Your task to perform on an android device: turn off picture-in-picture Image 0: 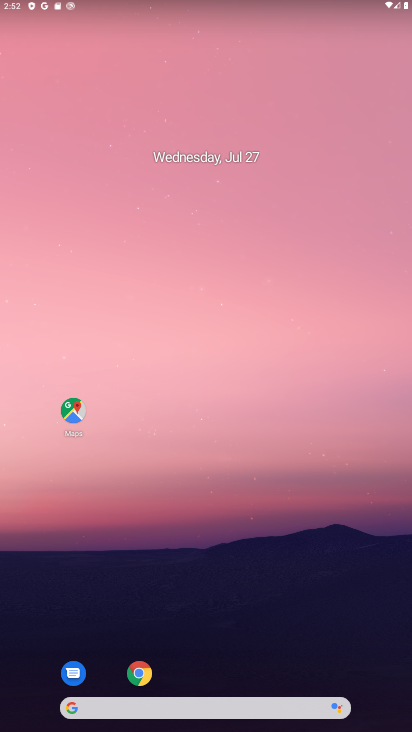
Step 0: click (145, 669)
Your task to perform on an android device: turn off picture-in-picture Image 1: 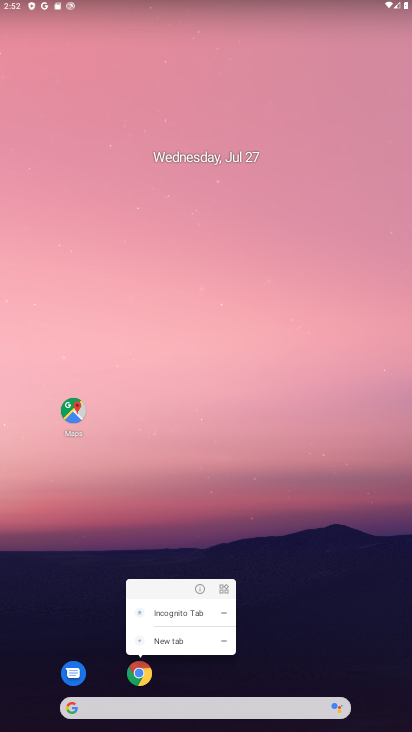
Step 1: click (201, 586)
Your task to perform on an android device: turn off picture-in-picture Image 2: 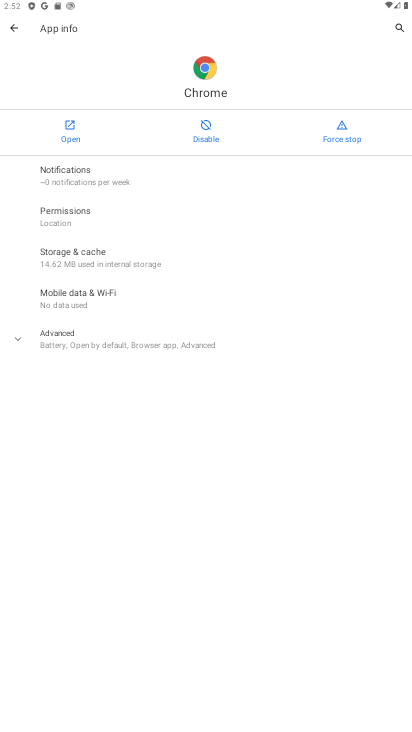
Step 2: click (236, 339)
Your task to perform on an android device: turn off picture-in-picture Image 3: 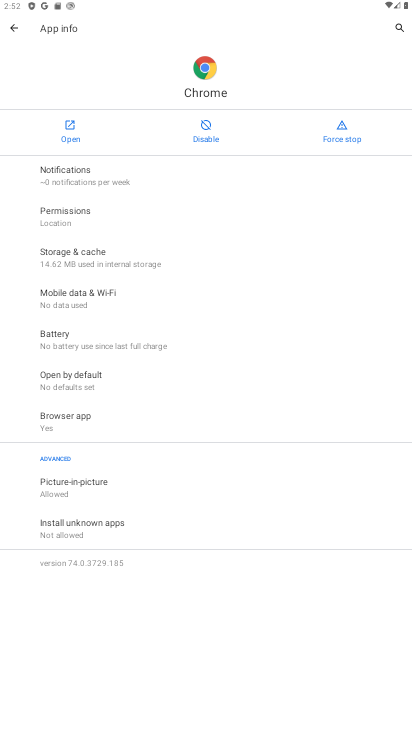
Step 3: click (93, 483)
Your task to perform on an android device: turn off picture-in-picture Image 4: 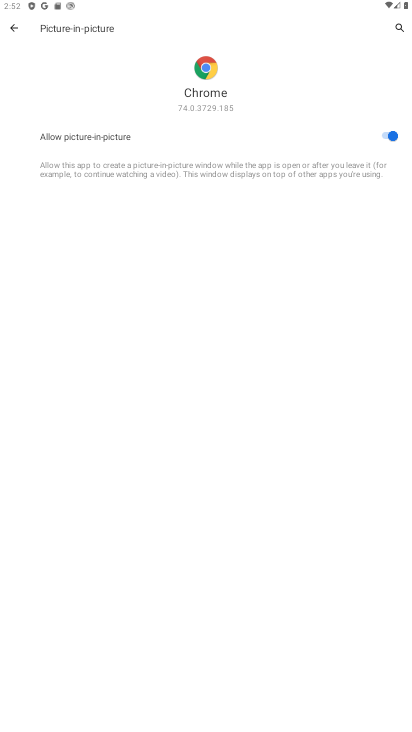
Step 4: click (385, 138)
Your task to perform on an android device: turn off picture-in-picture Image 5: 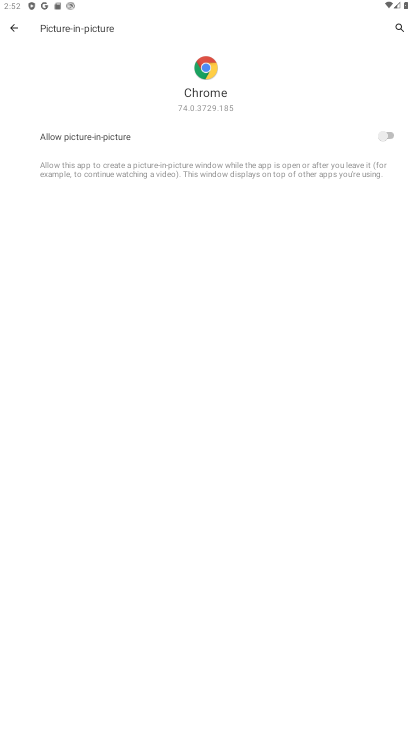
Step 5: task complete